Your task to perform on an android device: change the clock style Image 0: 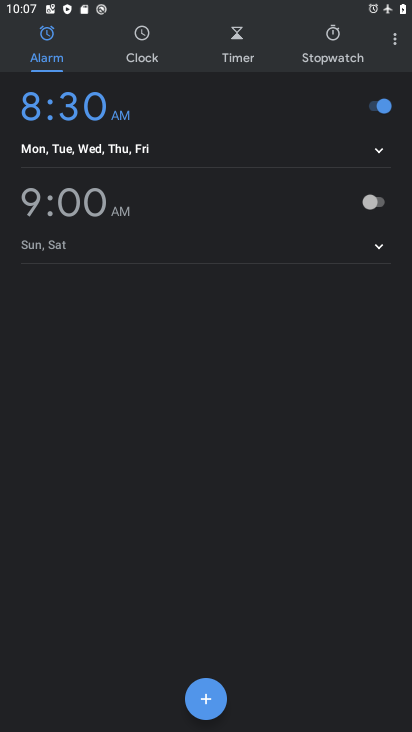
Step 0: click (395, 36)
Your task to perform on an android device: change the clock style Image 1: 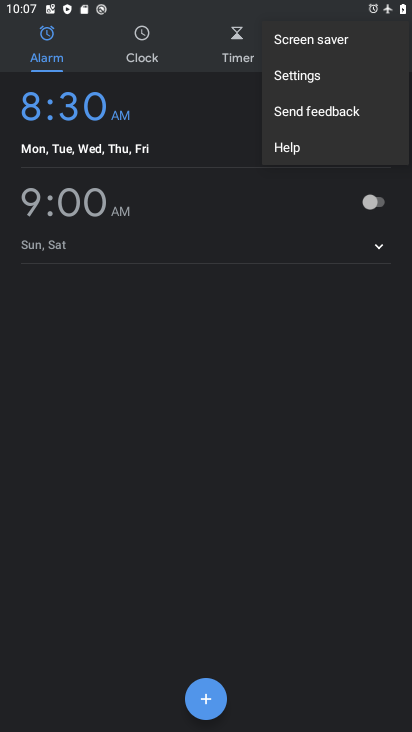
Step 1: click (337, 83)
Your task to perform on an android device: change the clock style Image 2: 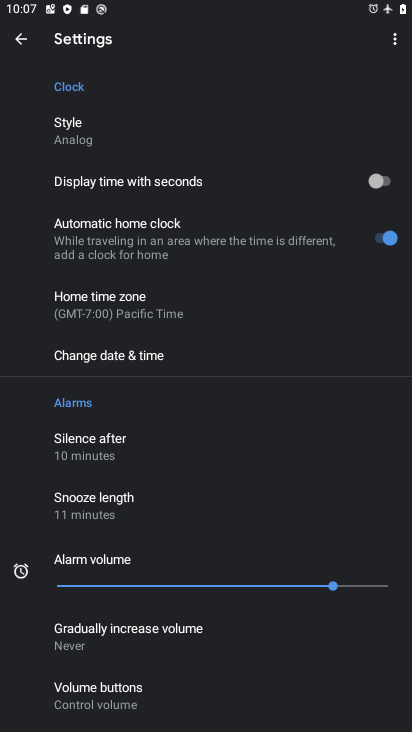
Step 2: click (126, 134)
Your task to perform on an android device: change the clock style Image 3: 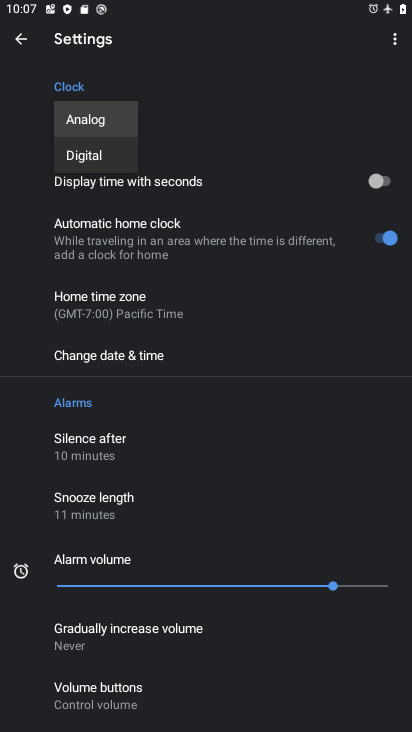
Step 3: click (113, 156)
Your task to perform on an android device: change the clock style Image 4: 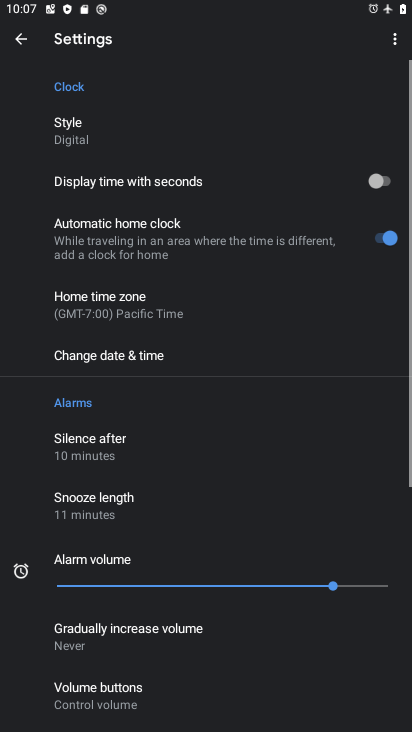
Step 4: task complete